Your task to perform on an android device: install app "Lyft - Rideshare, Bikes, Scooters & Transit" Image 0: 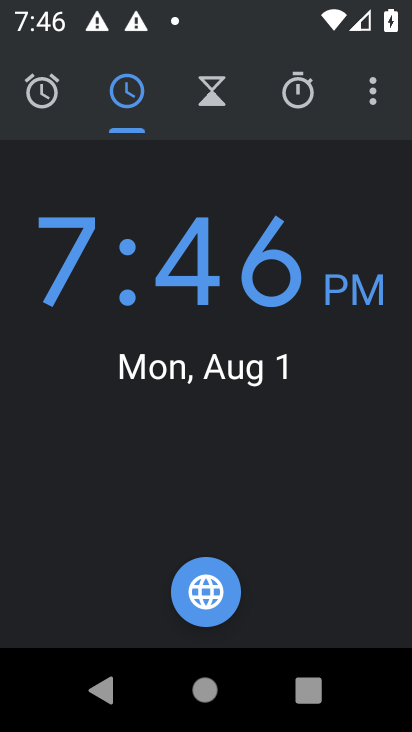
Step 0: press home button
Your task to perform on an android device: install app "Lyft - Rideshare, Bikes, Scooters & Transit" Image 1: 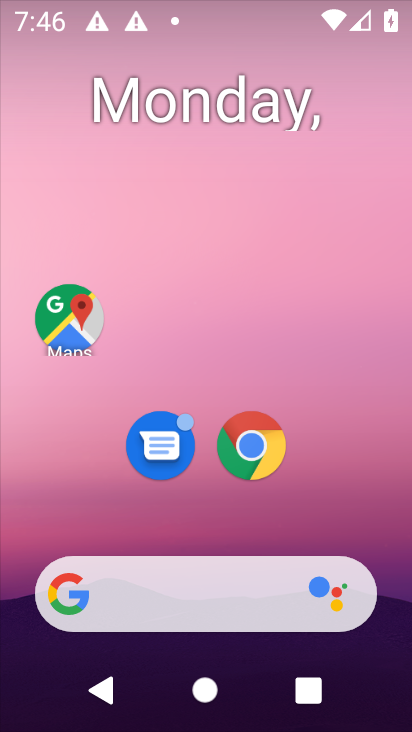
Step 1: drag from (397, 612) to (288, 78)
Your task to perform on an android device: install app "Lyft - Rideshare, Bikes, Scooters & Transit" Image 2: 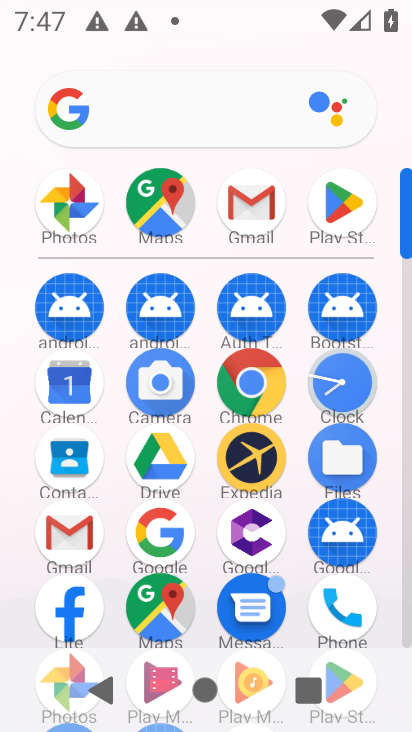
Step 2: click (321, 216)
Your task to perform on an android device: install app "Lyft - Rideshare, Bikes, Scooters & Transit" Image 3: 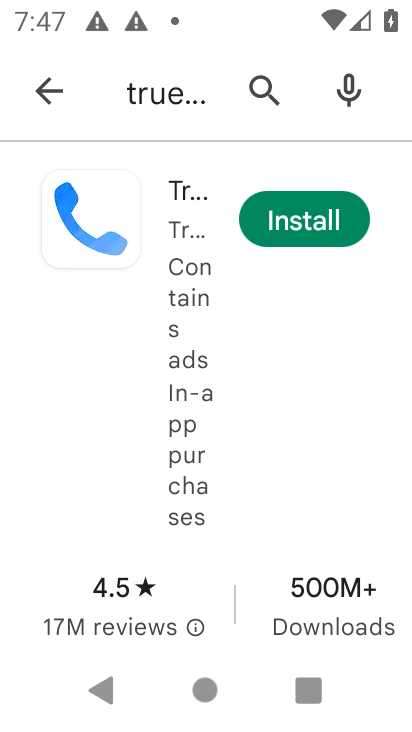
Step 3: press back button
Your task to perform on an android device: install app "Lyft - Rideshare, Bikes, Scooters & Transit" Image 4: 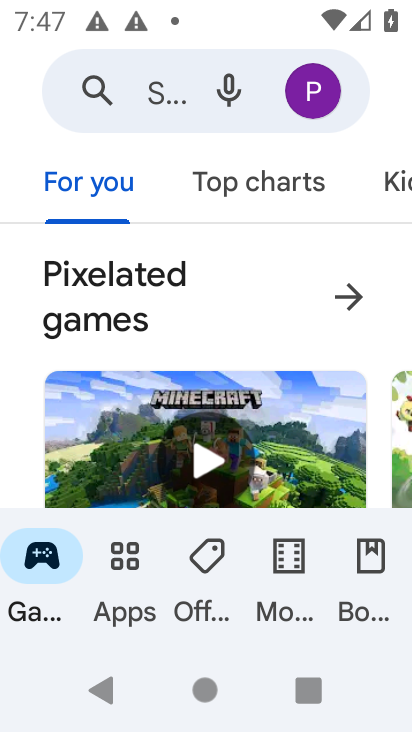
Step 4: click (147, 90)
Your task to perform on an android device: install app "Lyft - Rideshare, Bikes, Scooters & Transit" Image 5: 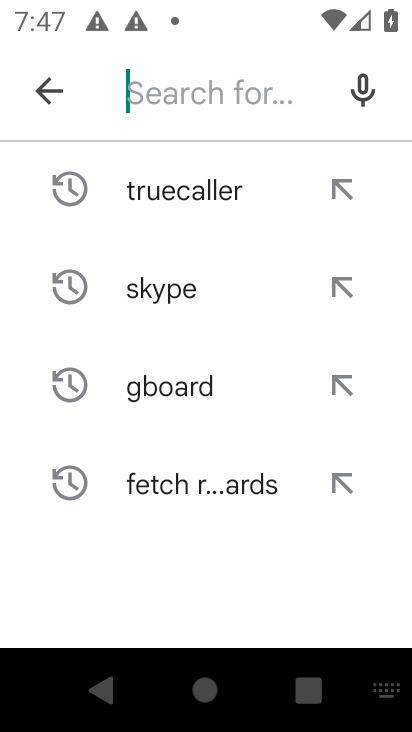
Step 5: type "Lyft - Rideshare, Bikes, Scooters & Transit"
Your task to perform on an android device: install app "Lyft - Rideshare, Bikes, Scooters & Transit" Image 6: 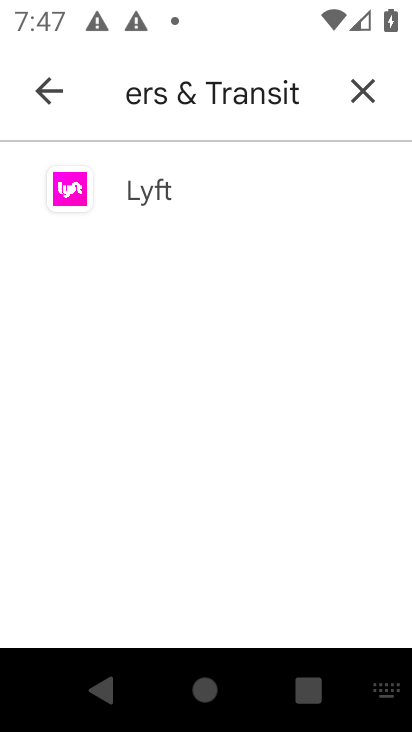
Step 6: click (209, 196)
Your task to perform on an android device: install app "Lyft - Rideshare, Bikes, Scooters & Transit" Image 7: 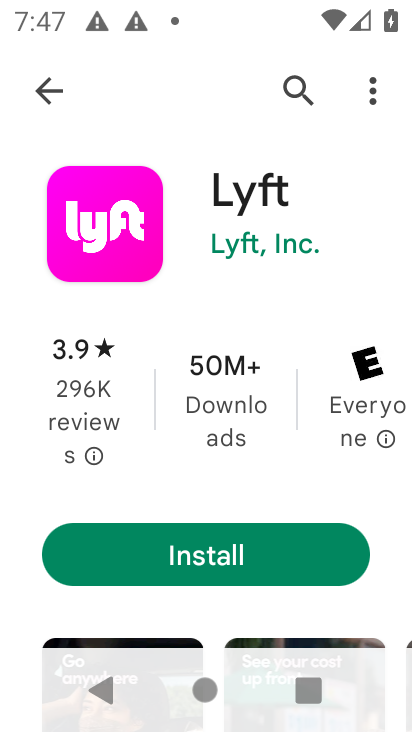
Step 7: click (278, 548)
Your task to perform on an android device: install app "Lyft - Rideshare, Bikes, Scooters & Transit" Image 8: 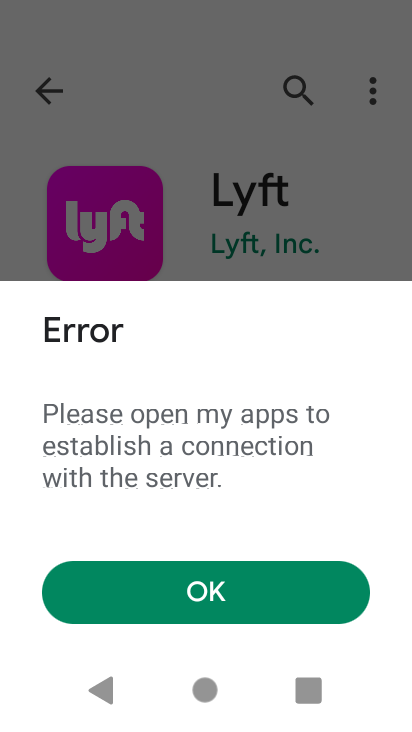
Step 8: task complete